Your task to perform on an android device: delete location history Image 0: 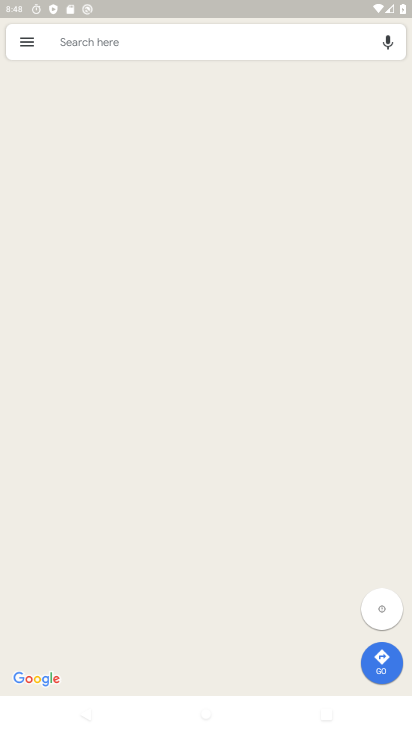
Step 0: press home button
Your task to perform on an android device: delete location history Image 1: 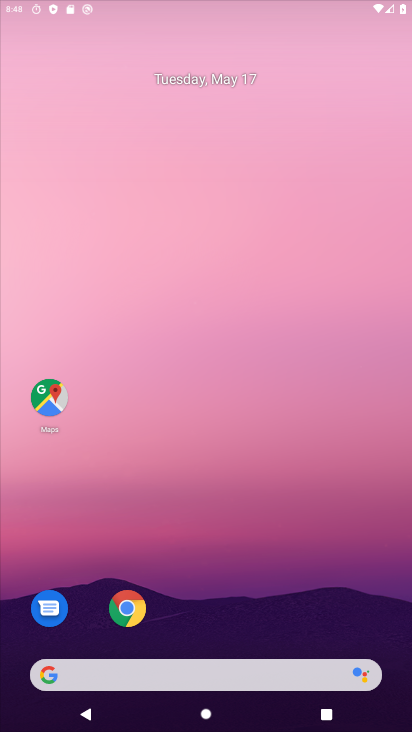
Step 1: drag from (393, 567) to (383, 186)
Your task to perform on an android device: delete location history Image 2: 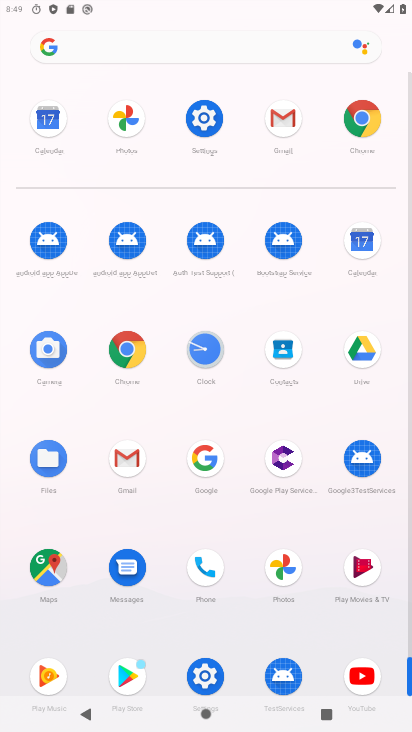
Step 2: click (206, 672)
Your task to perform on an android device: delete location history Image 3: 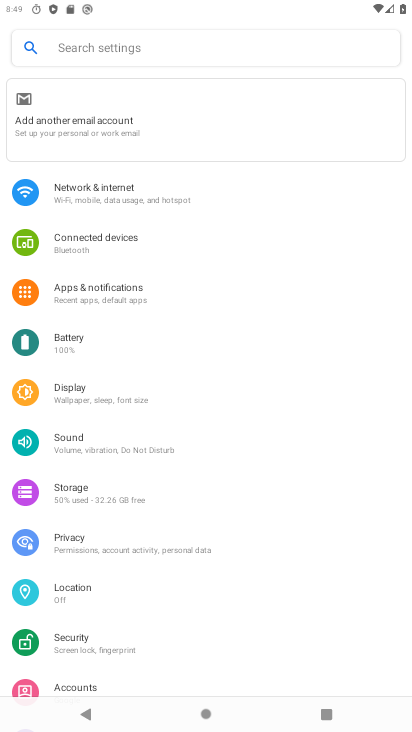
Step 3: click (101, 573)
Your task to perform on an android device: delete location history Image 4: 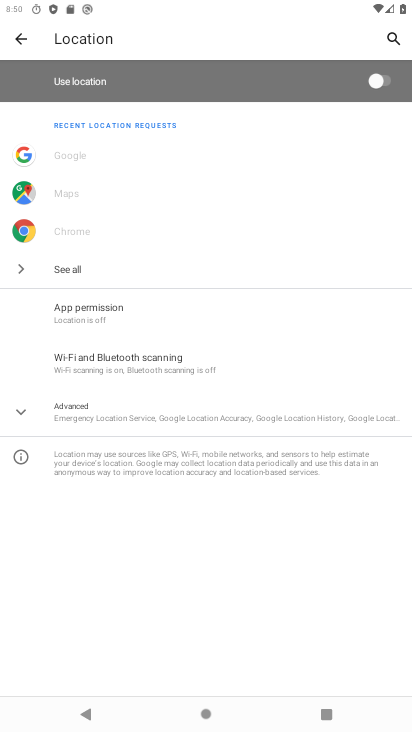
Step 4: click (85, 406)
Your task to perform on an android device: delete location history Image 5: 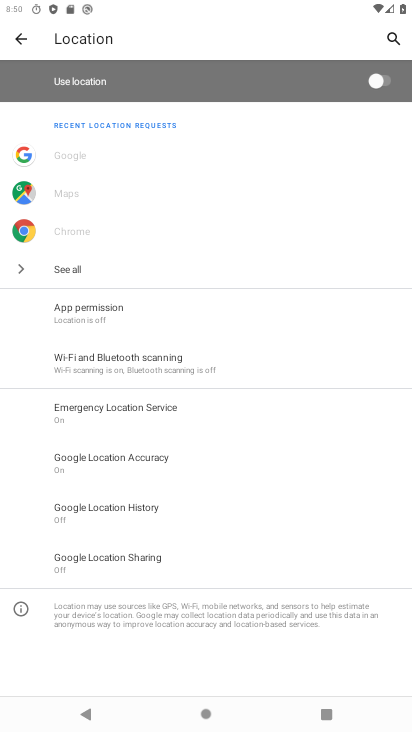
Step 5: click (137, 501)
Your task to perform on an android device: delete location history Image 6: 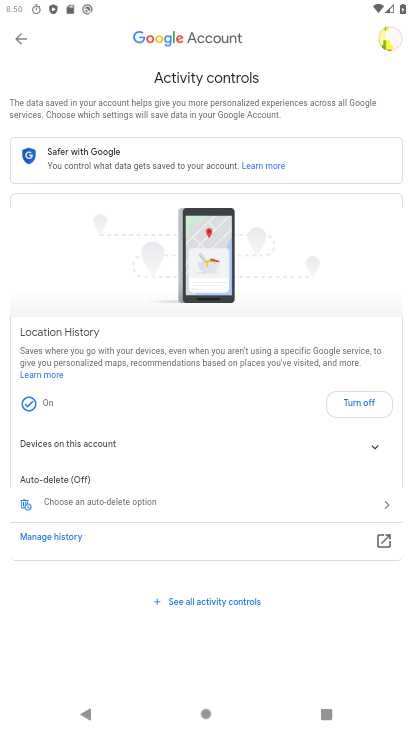
Step 6: click (61, 546)
Your task to perform on an android device: delete location history Image 7: 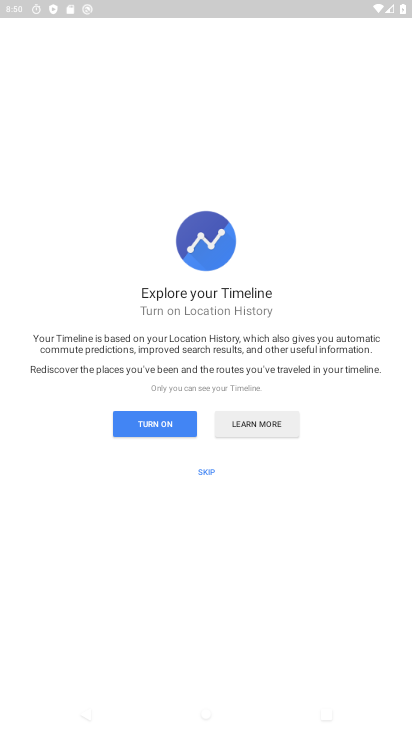
Step 7: click (202, 475)
Your task to perform on an android device: delete location history Image 8: 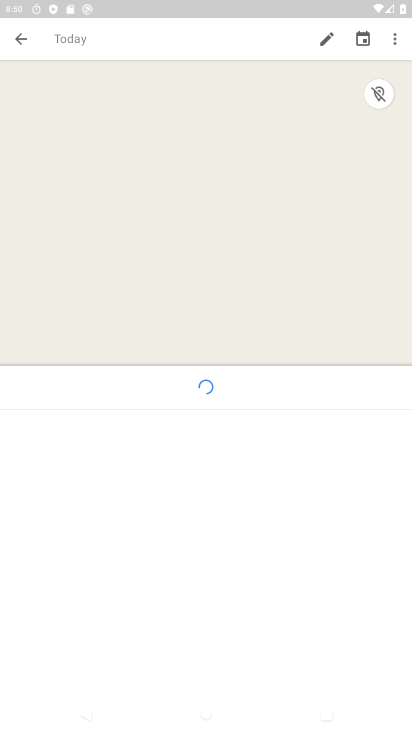
Step 8: drag from (391, 46) to (327, 250)
Your task to perform on an android device: delete location history Image 9: 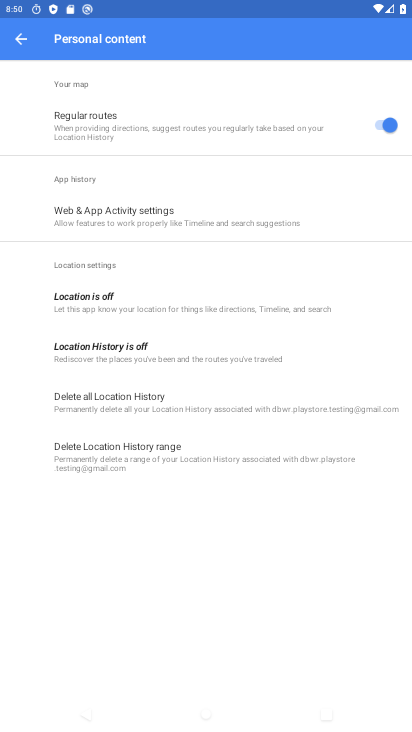
Step 9: click (204, 402)
Your task to perform on an android device: delete location history Image 10: 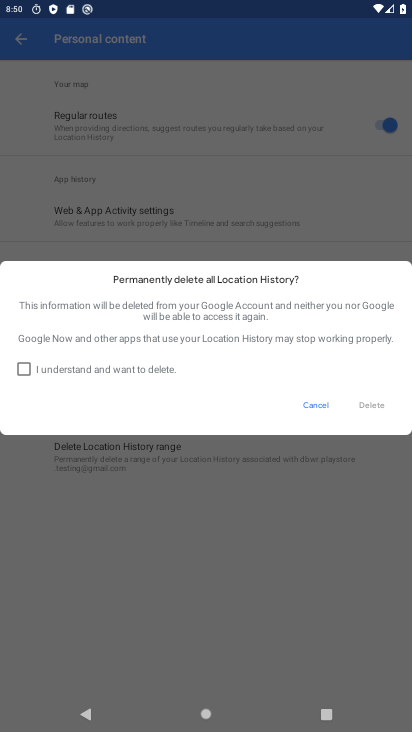
Step 10: click (22, 374)
Your task to perform on an android device: delete location history Image 11: 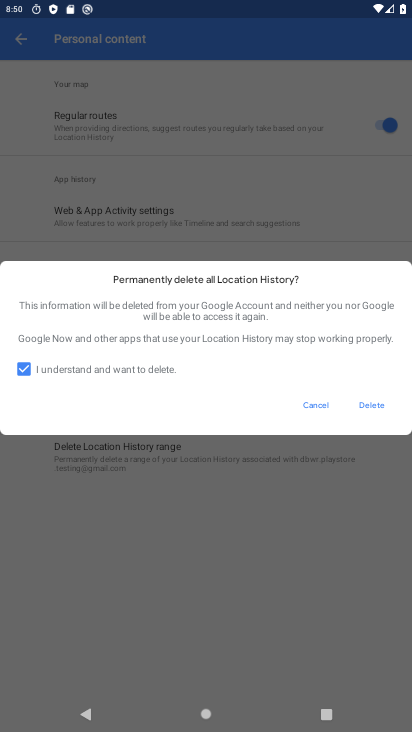
Step 11: click (376, 406)
Your task to perform on an android device: delete location history Image 12: 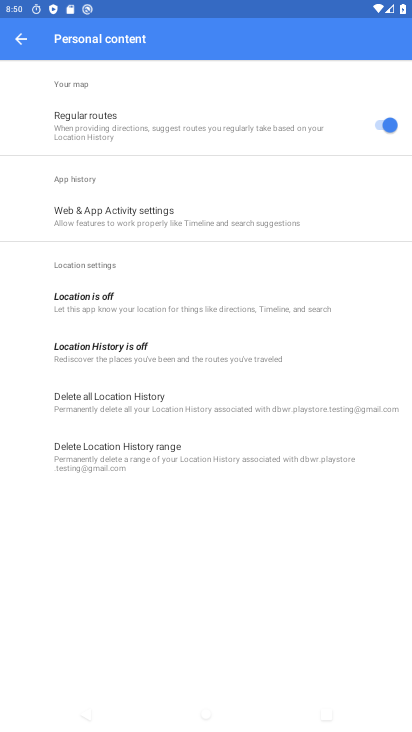
Step 12: task complete